Your task to perform on an android device: open a bookmark in the chrome app Image 0: 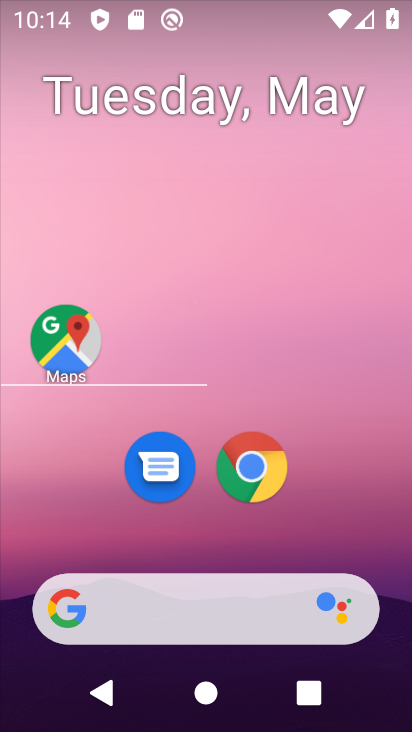
Step 0: click (291, 23)
Your task to perform on an android device: open a bookmark in the chrome app Image 1: 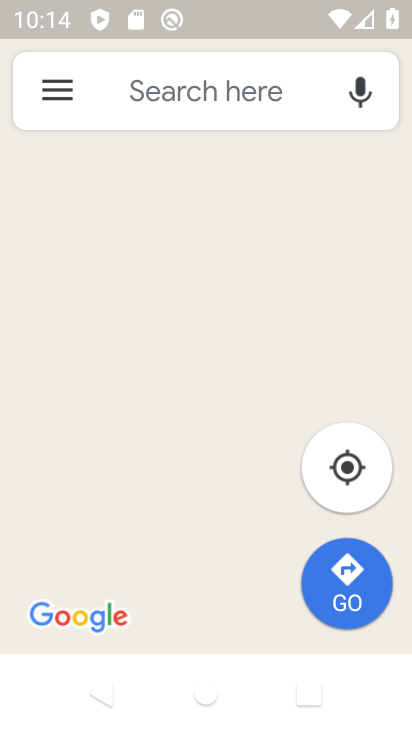
Step 1: drag from (197, 551) to (235, 35)
Your task to perform on an android device: open a bookmark in the chrome app Image 2: 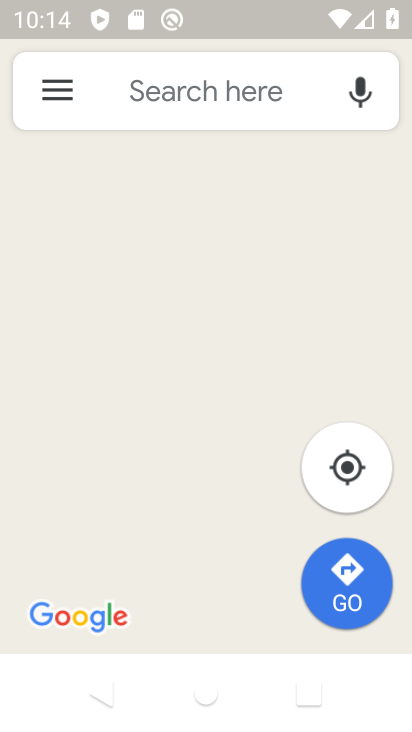
Step 2: press home button
Your task to perform on an android device: open a bookmark in the chrome app Image 3: 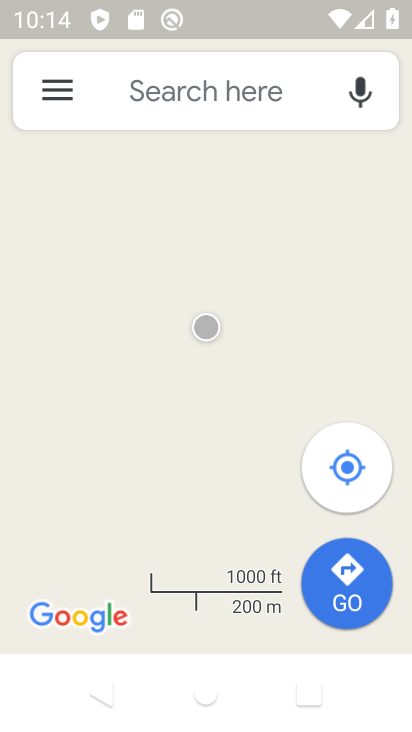
Step 3: drag from (155, 609) to (193, 45)
Your task to perform on an android device: open a bookmark in the chrome app Image 4: 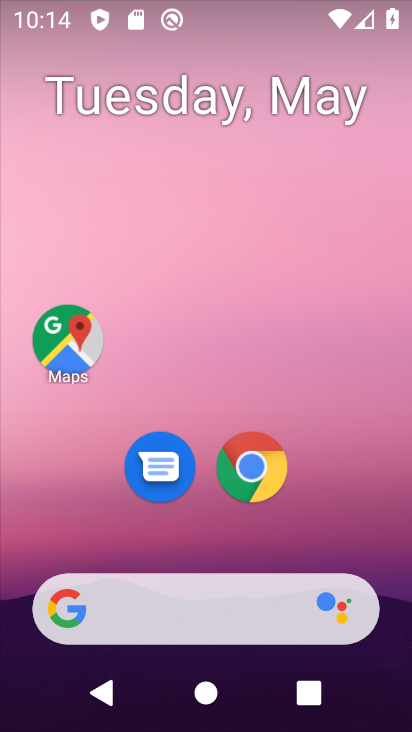
Step 4: drag from (207, 533) to (226, 155)
Your task to perform on an android device: open a bookmark in the chrome app Image 5: 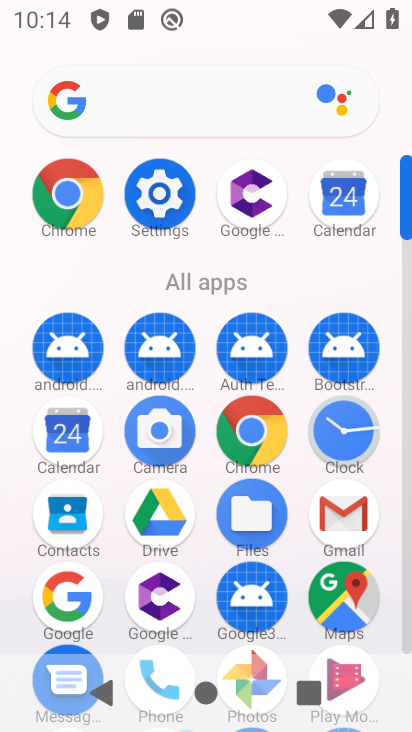
Step 5: click (62, 193)
Your task to perform on an android device: open a bookmark in the chrome app Image 6: 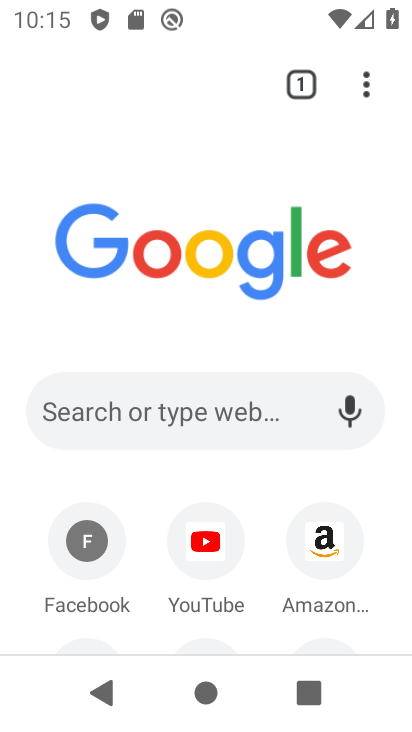
Step 6: click (360, 84)
Your task to perform on an android device: open a bookmark in the chrome app Image 7: 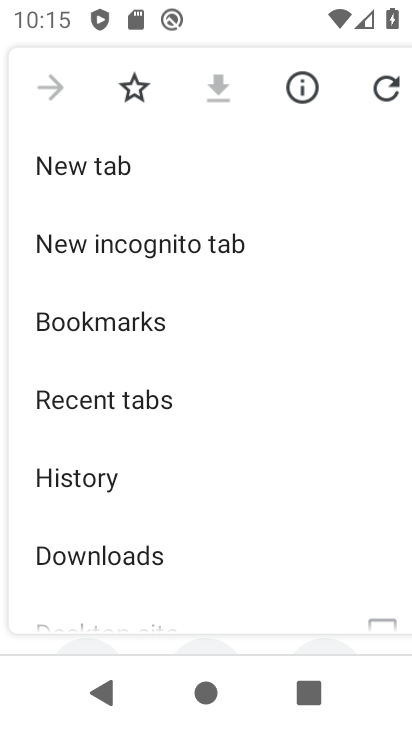
Step 7: drag from (122, 527) to (173, 201)
Your task to perform on an android device: open a bookmark in the chrome app Image 8: 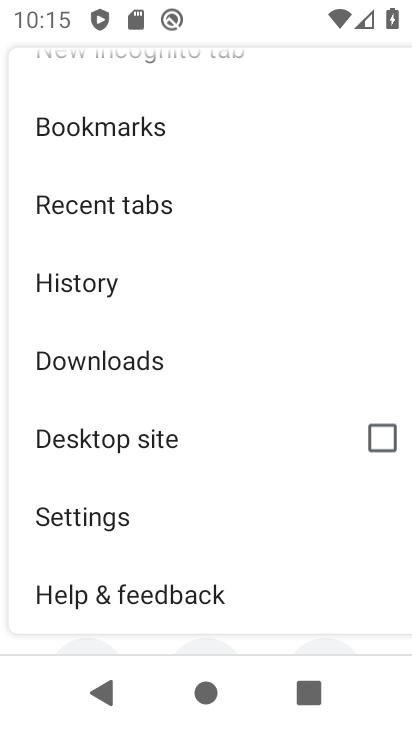
Step 8: click (136, 152)
Your task to perform on an android device: open a bookmark in the chrome app Image 9: 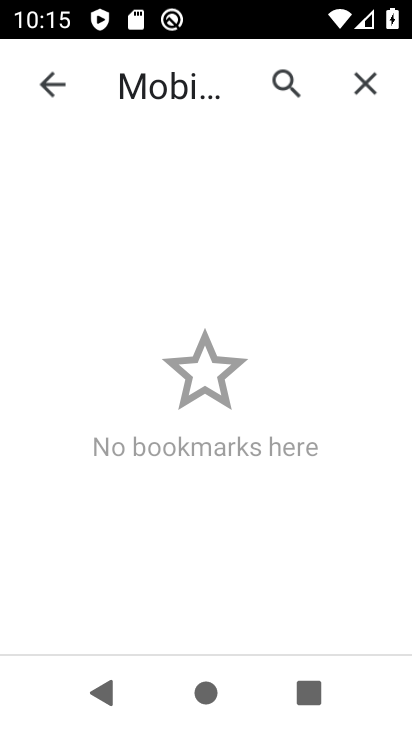
Step 9: task complete